Your task to perform on an android device: Open wifi settings Image 0: 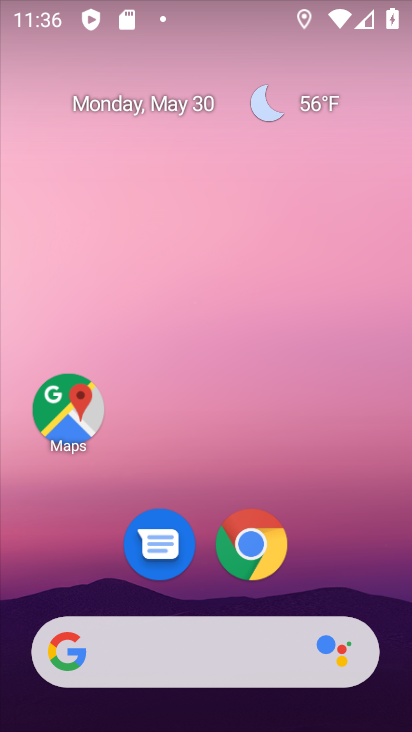
Step 0: drag from (296, 477) to (215, 79)
Your task to perform on an android device: Open wifi settings Image 1: 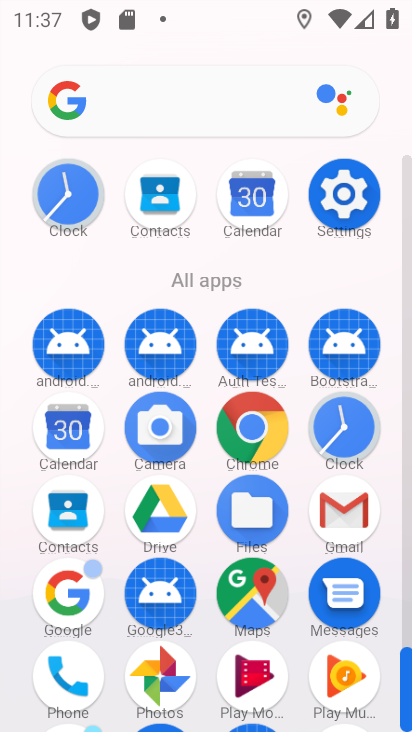
Step 1: click (345, 194)
Your task to perform on an android device: Open wifi settings Image 2: 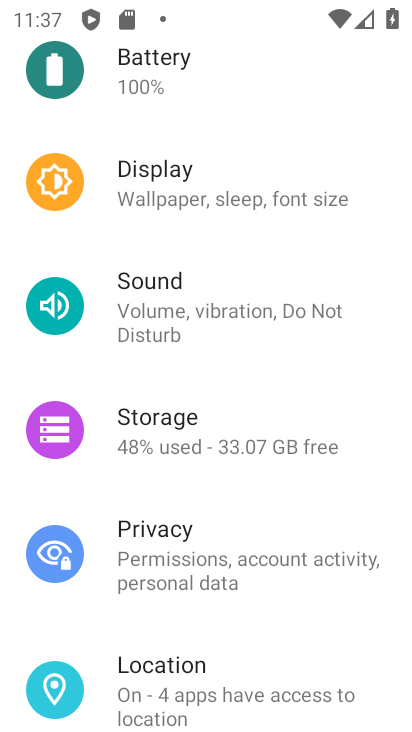
Step 2: drag from (272, 363) to (192, 74)
Your task to perform on an android device: Open wifi settings Image 3: 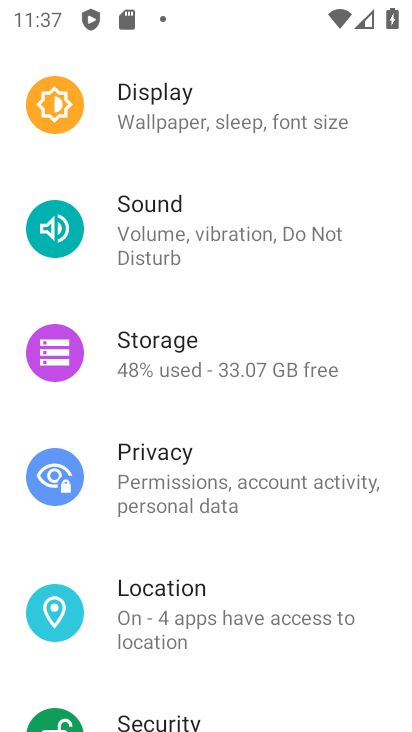
Step 3: drag from (237, 156) to (303, 658)
Your task to perform on an android device: Open wifi settings Image 4: 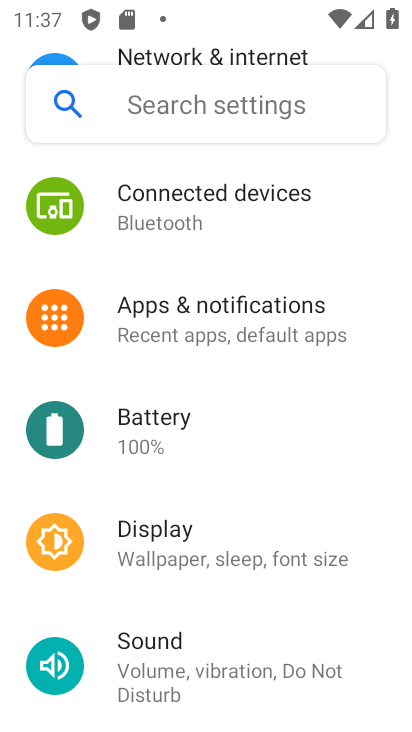
Step 4: drag from (226, 269) to (268, 713)
Your task to perform on an android device: Open wifi settings Image 5: 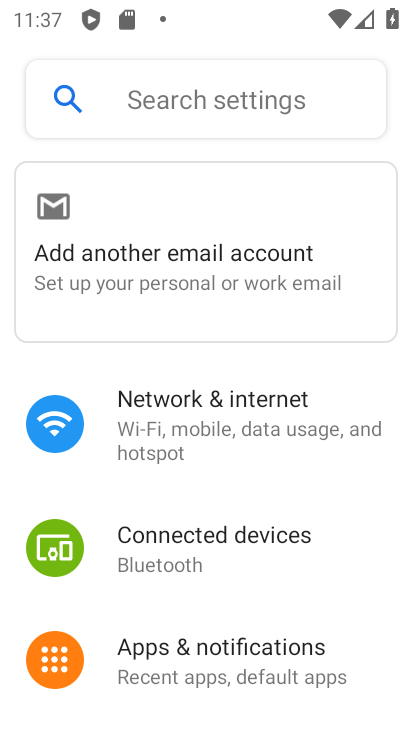
Step 5: click (184, 399)
Your task to perform on an android device: Open wifi settings Image 6: 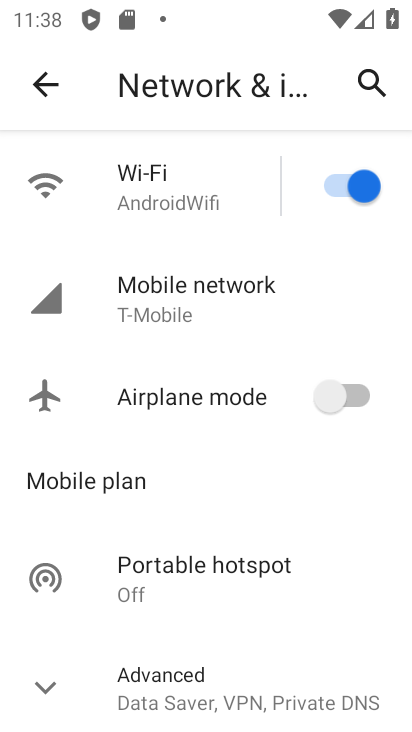
Step 6: click (160, 199)
Your task to perform on an android device: Open wifi settings Image 7: 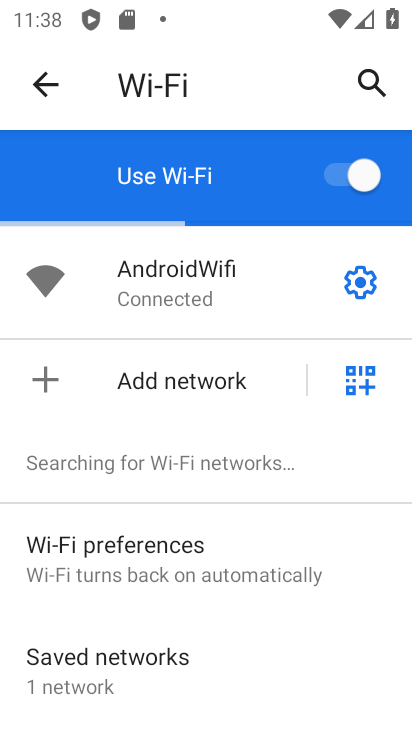
Step 7: task complete